Your task to perform on an android device: Go to accessibility settings Image 0: 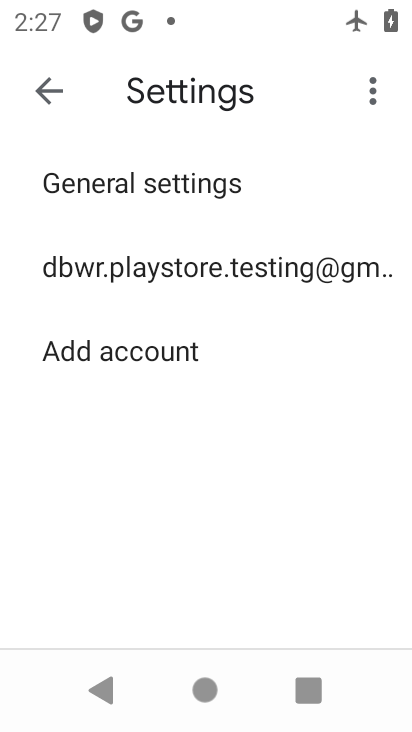
Step 0: press home button
Your task to perform on an android device: Go to accessibility settings Image 1: 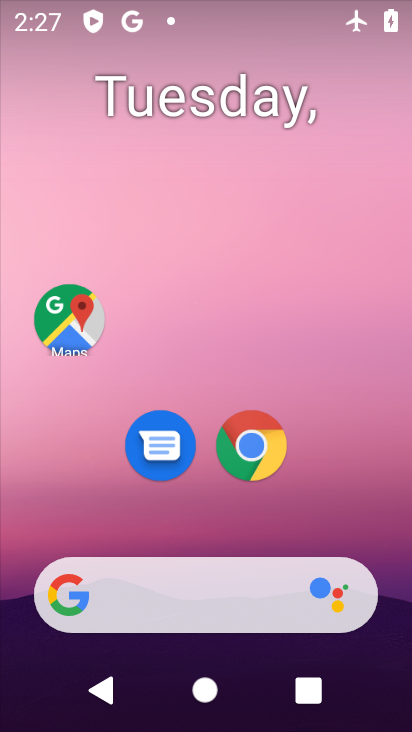
Step 1: drag from (171, 567) to (184, 73)
Your task to perform on an android device: Go to accessibility settings Image 2: 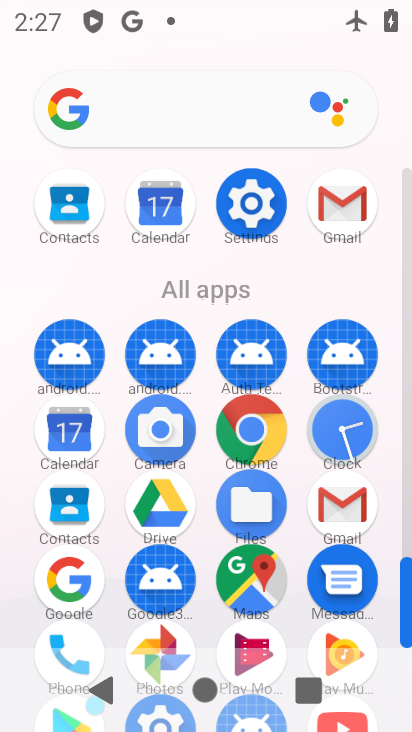
Step 2: click (264, 198)
Your task to perform on an android device: Go to accessibility settings Image 3: 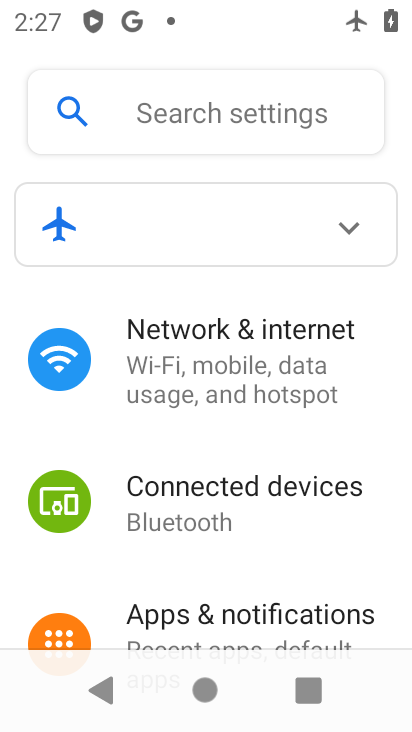
Step 3: drag from (211, 569) to (202, 35)
Your task to perform on an android device: Go to accessibility settings Image 4: 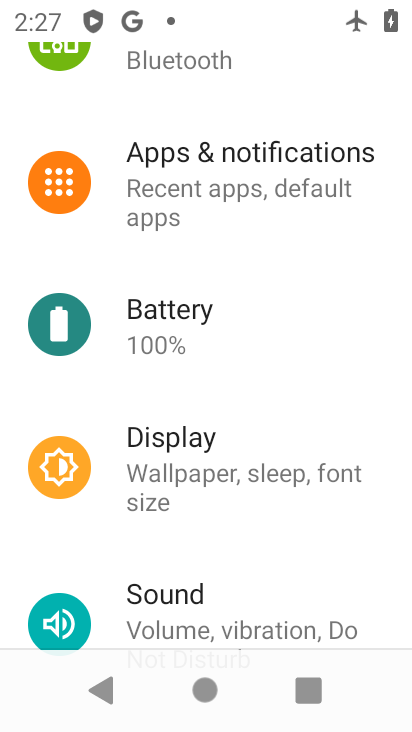
Step 4: drag from (193, 614) to (179, 107)
Your task to perform on an android device: Go to accessibility settings Image 5: 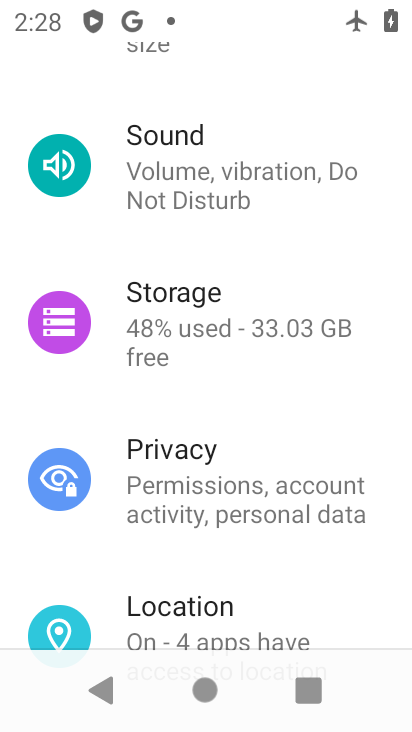
Step 5: drag from (250, 606) to (194, 142)
Your task to perform on an android device: Go to accessibility settings Image 6: 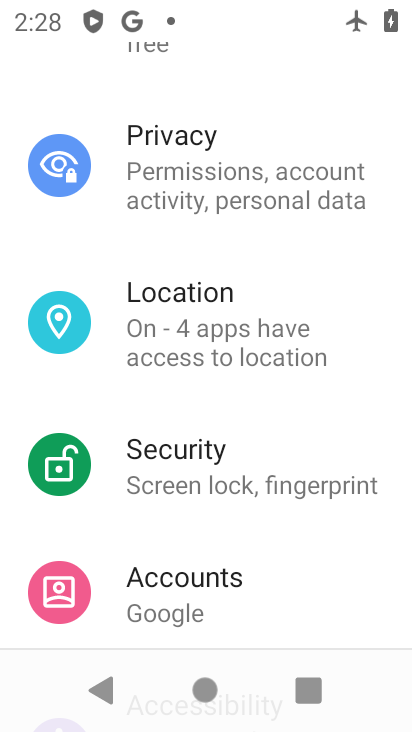
Step 6: drag from (248, 575) to (234, 182)
Your task to perform on an android device: Go to accessibility settings Image 7: 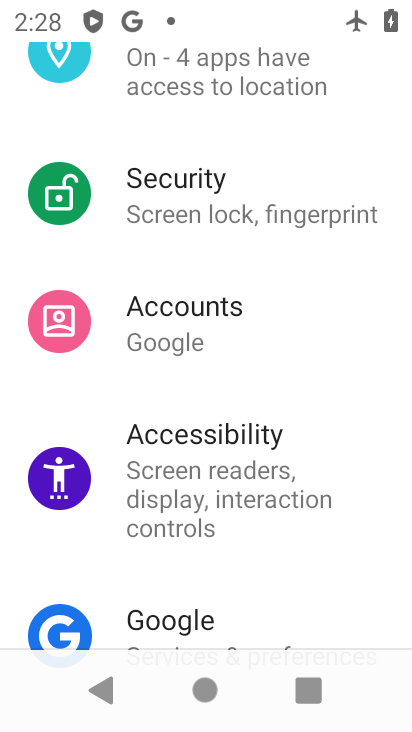
Step 7: click (223, 488)
Your task to perform on an android device: Go to accessibility settings Image 8: 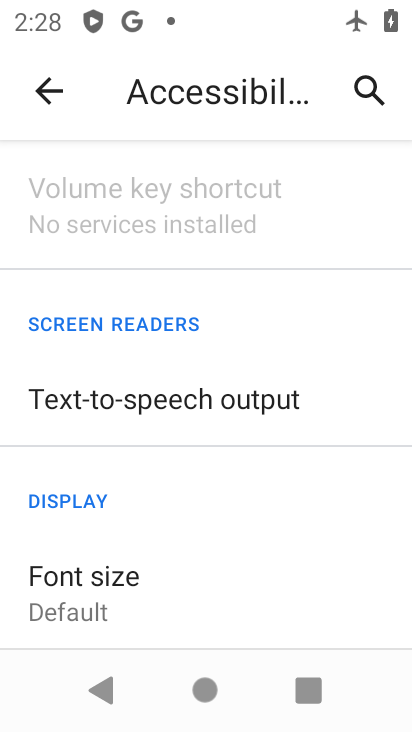
Step 8: task complete